Your task to perform on an android device: open chrome privacy settings Image 0: 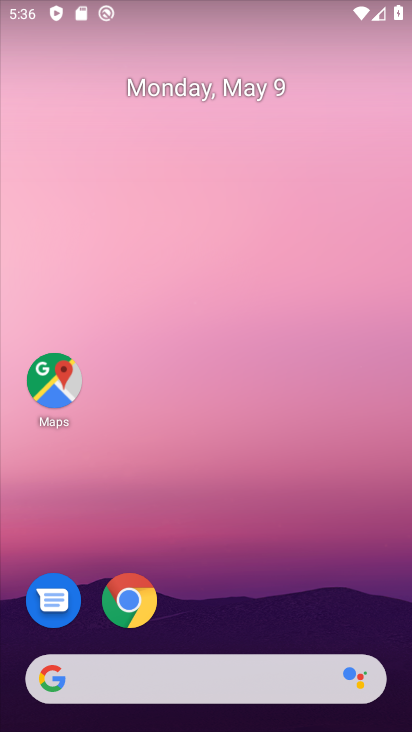
Step 0: click (137, 594)
Your task to perform on an android device: open chrome privacy settings Image 1: 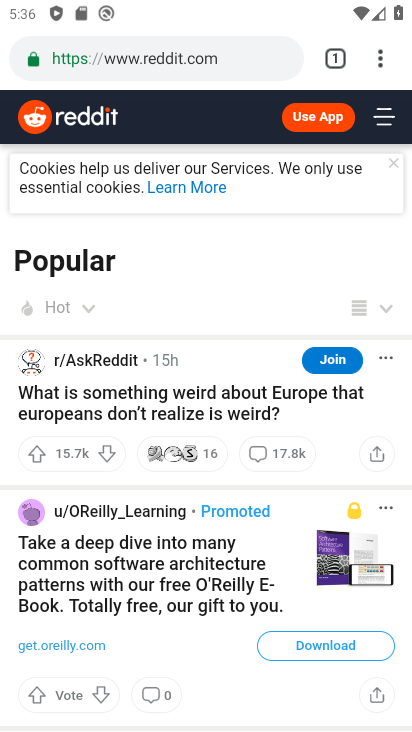
Step 1: click (387, 58)
Your task to perform on an android device: open chrome privacy settings Image 2: 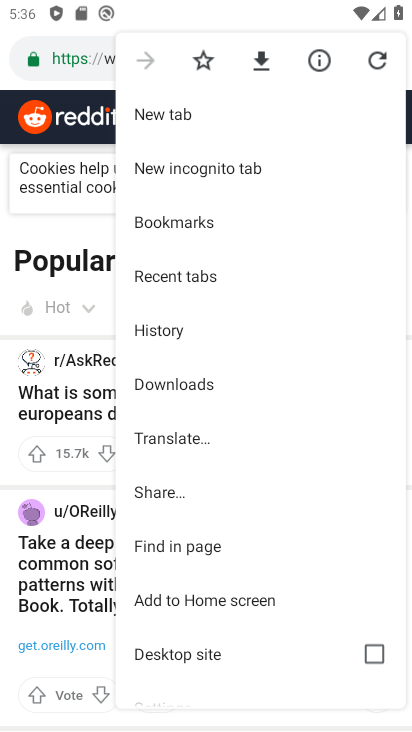
Step 2: drag from (225, 649) to (236, 340)
Your task to perform on an android device: open chrome privacy settings Image 3: 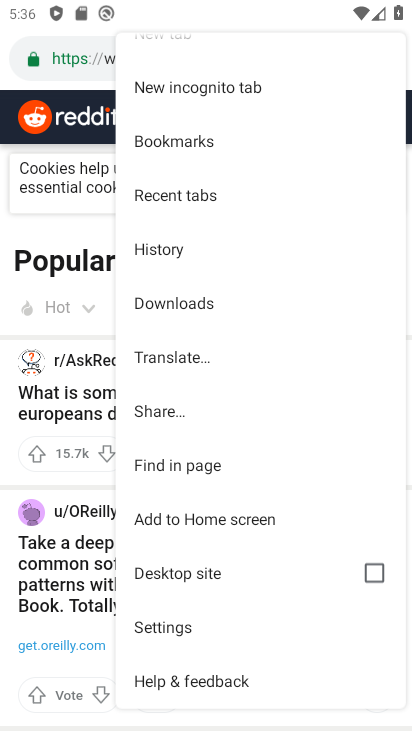
Step 3: click (174, 626)
Your task to perform on an android device: open chrome privacy settings Image 4: 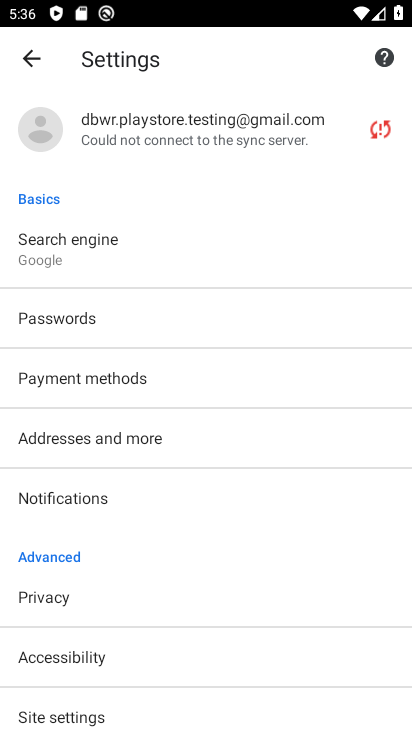
Step 4: click (60, 604)
Your task to perform on an android device: open chrome privacy settings Image 5: 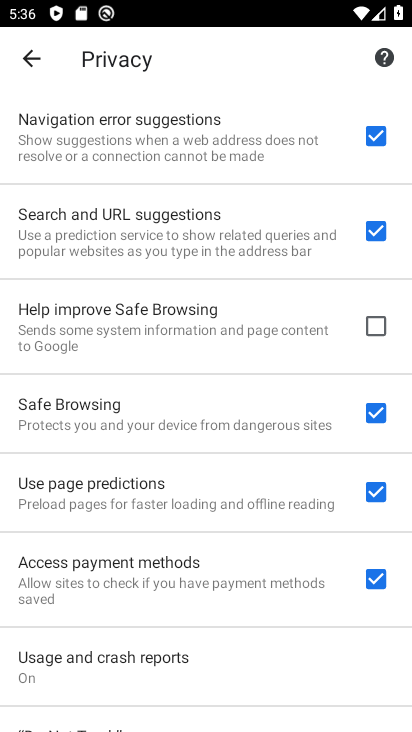
Step 5: task complete